Your task to perform on an android device: turn off picture-in-picture Image 0: 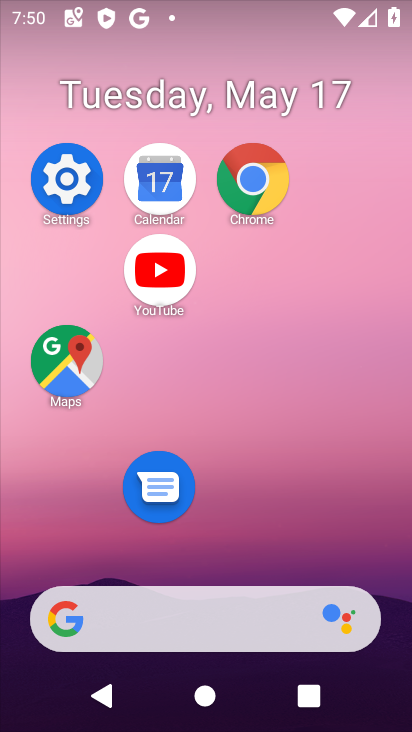
Step 0: click (245, 179)
Your task to perform on an android device: turn off picture-in-picture Image 1: 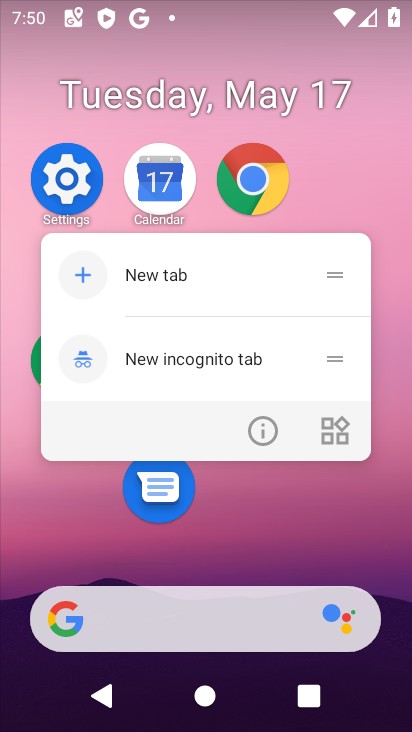
Step 1: click (265, 431)
Your task to perform on an android device: turn off picture-in-picture Image 2: 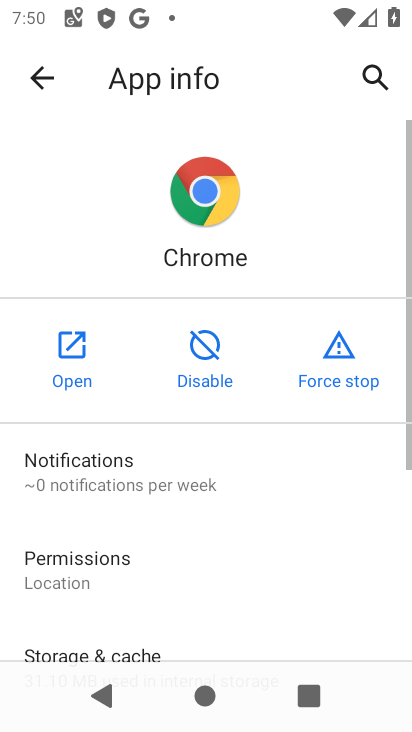
Step 2: drag from (265, 431) to (242, 71)
Your task to perform on an android device: turn off picture-in-picture Image 3: 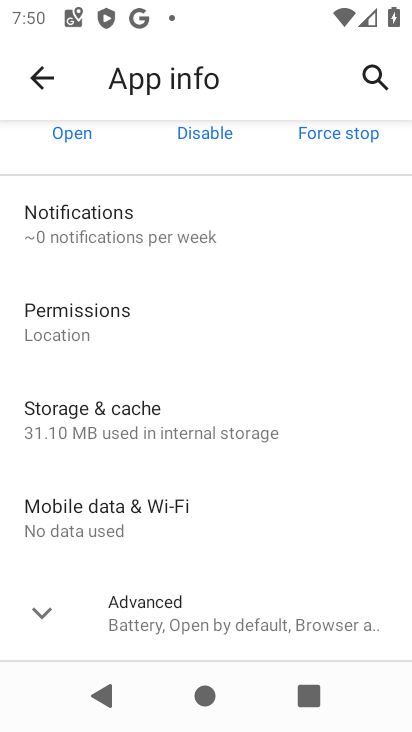
Step 3: click (211, 599)
Your task to perform on an android device: turn off picture-in-picture Image 4: 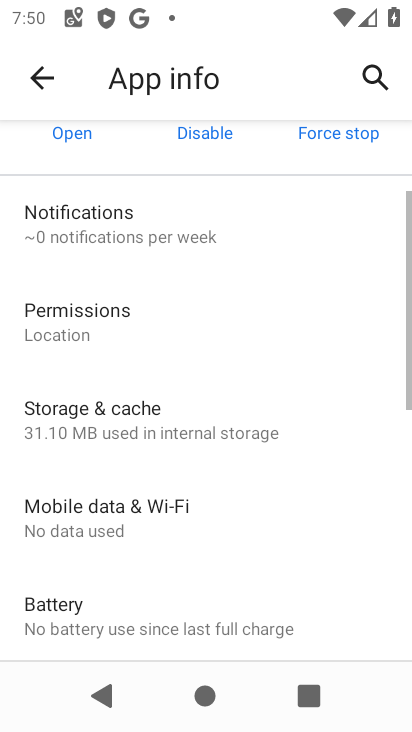
Step 4: drag from (211, 599) to (269, 253)
Your task to perform on an android device: turn off picture-in-picture Image 5: 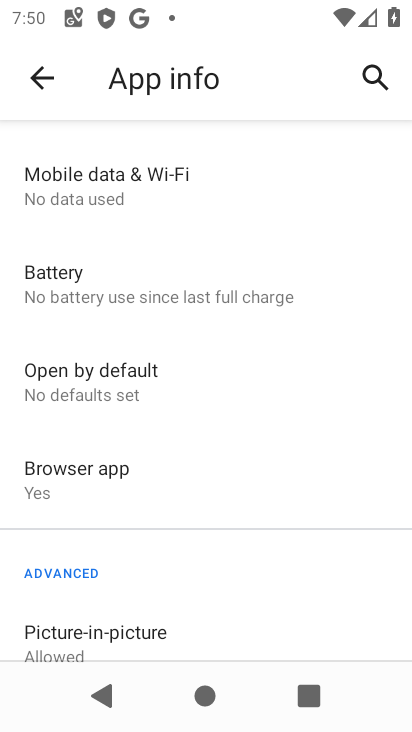
Step 5: click (202, 641)
Your task to perform on an android device: turn off picture-in-picture Image 6: 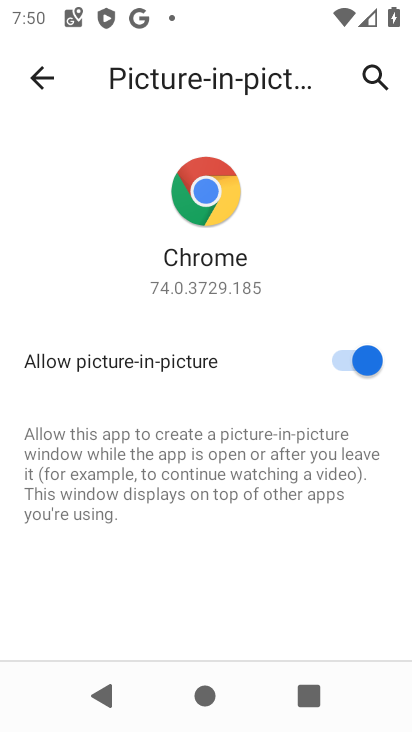
Step 6: click (345, 350)
Your task to perform on an android device: turn off picture-in-picture Image 7: 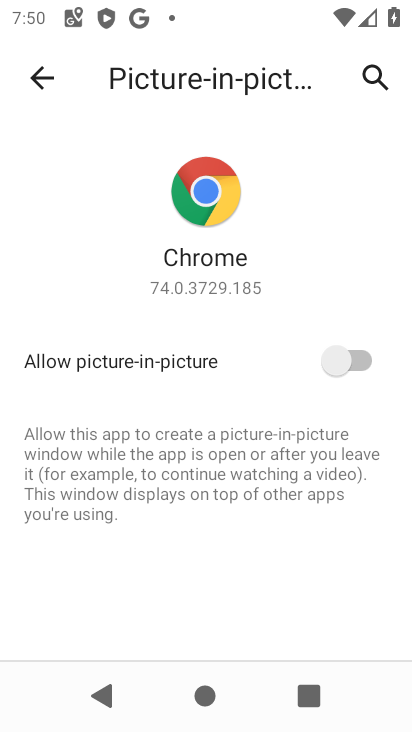
Step 7: task complete